Your task to perform on an android device: Open Google Chrome and open the bookmarks view Image 0: 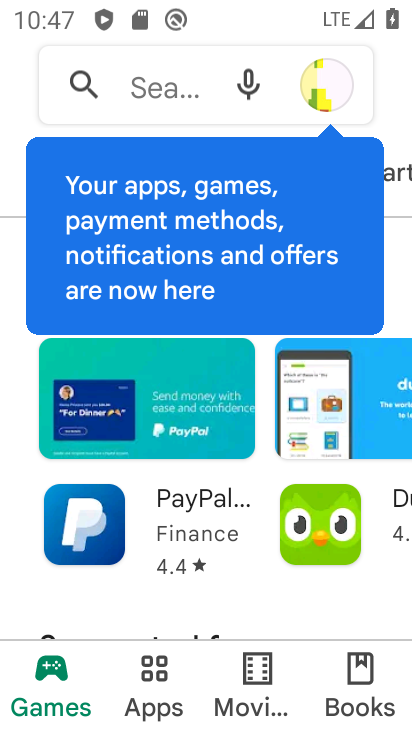
Step 0: press home button
Your task to perform on an android device: Open Google Chrome and open the bookmarks view Image 1: 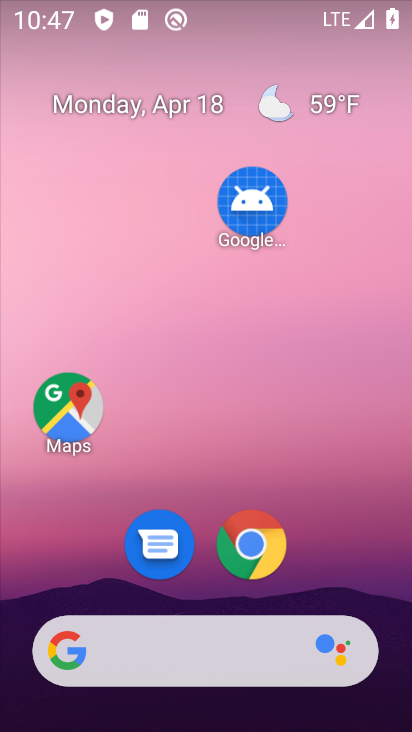
Step 1: drag from (348, 371) to (354, 150)
Your task to perform on an android device: Open Google Chrome and open the bookmarks view Image 2: 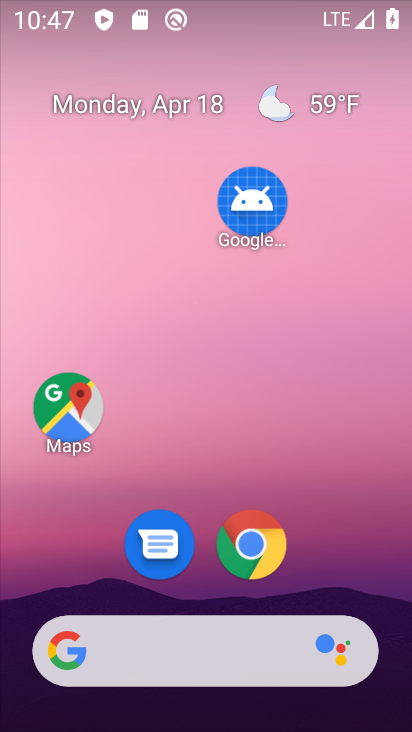
Step 2: drag from (302, 549) to (292, 161)
Your task to perform on an android device: Open Google Chrome and open the bookmarks view Image 3: 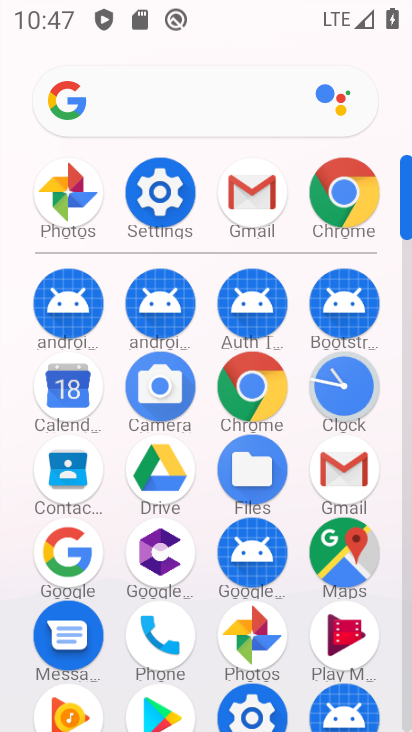
Step 3: click (235, 384)
Your task to perform on an android device: Open Google Chrome and open the bookmarks view Image 4: 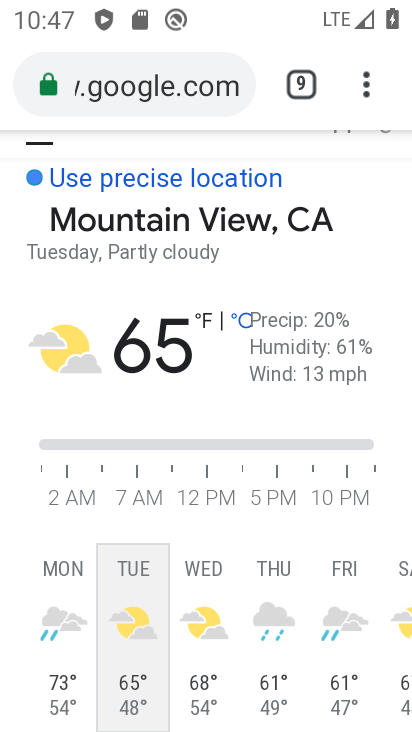
Step 4: click (361, 81)
Your task to perform on an android device: Open Google Chrome and open the bookmarks view Image 5: 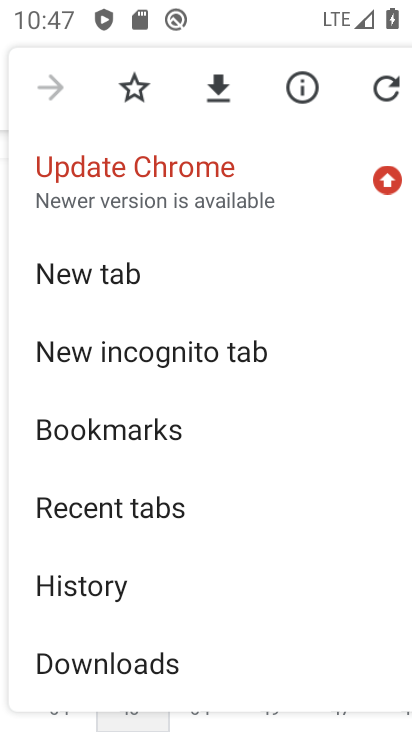
Step 5: click (164, 434)
Your task to perform on an android device: Open Google Chrome and open the bookmarks view Image 6: 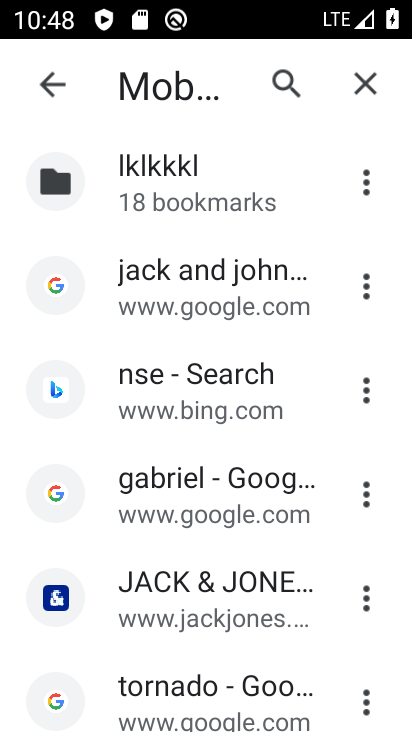
Step 6: task complete